Your task to perform on an android device: add a contact Image 0: 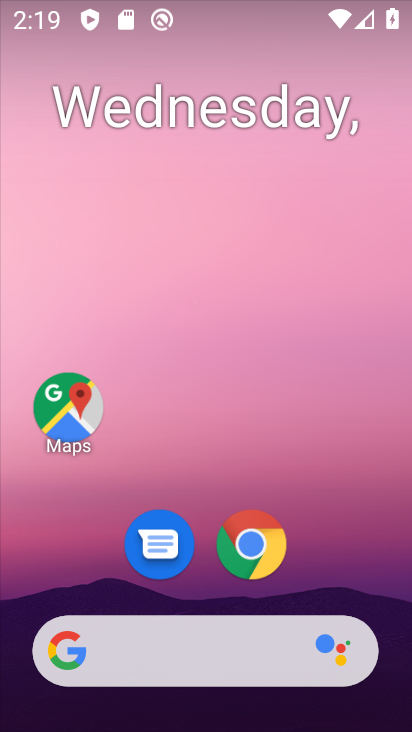
Step 0: drag from (361, 573) to (368, 150)
Your task to perform on an android device: add a contact Image 1: 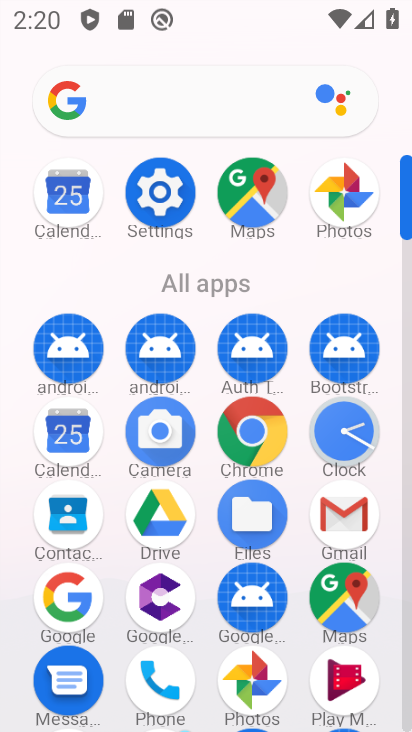
Step 1: drag from (256, 605) to (258, 302)
Your task to perform on an android device: add a contact Image 2: 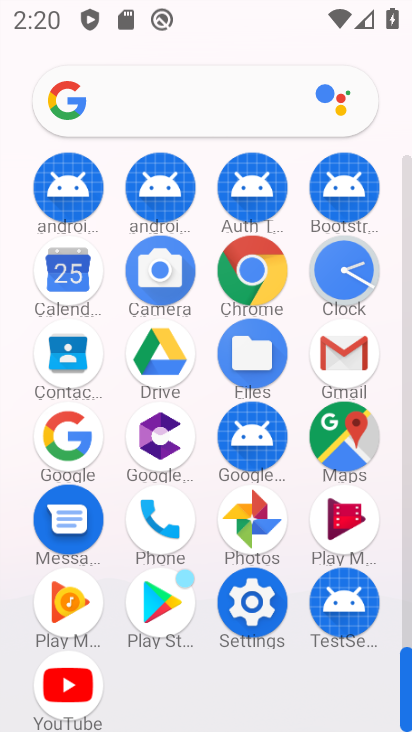
Step 2: click (54, 392)
Your task to perform on an android device: add a contact Image 3: 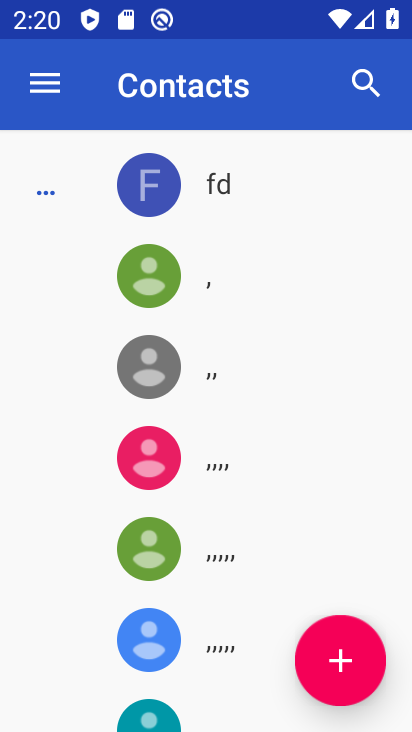
Step 3: click (341, 671)
Your task to perform on an android device: add a contact Image 4: 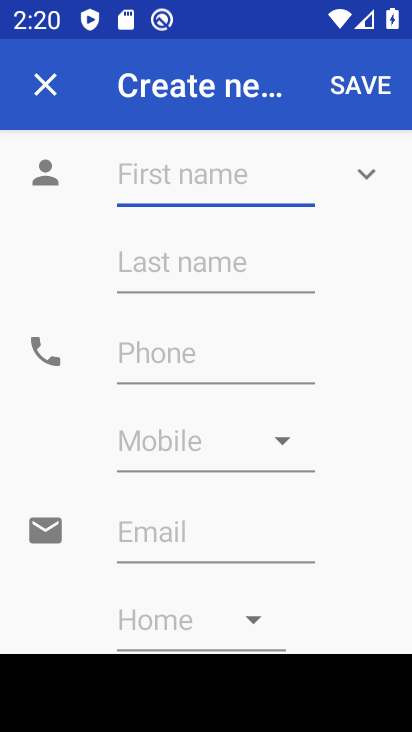
Step 4: type "jnfknd"
Your task to perform on an android device: add a contact Image 5: 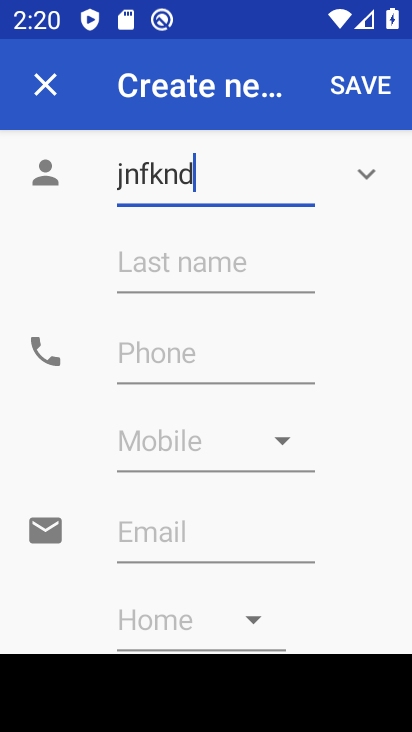
Step 5: click (193, 357)
Your task to perform on an android device: add a contact Image 6: 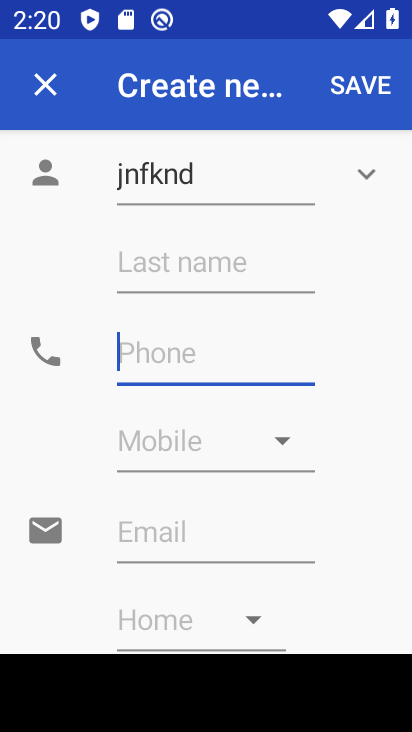
Step 6: type "2993898873"
Your task to perform on an android device: add a contact Image 7: 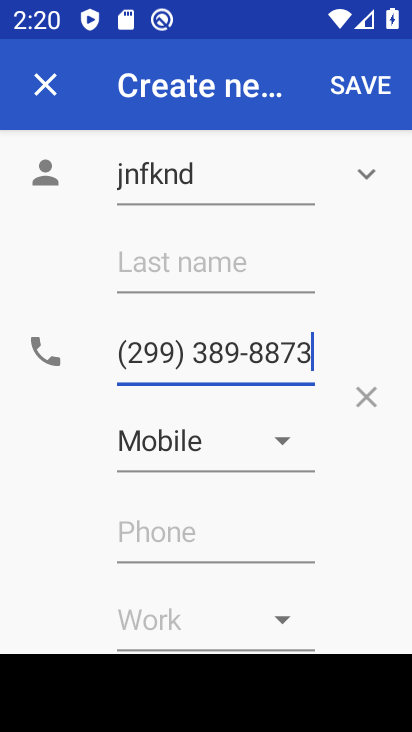
Step 7: click (379, 84)
Your task to perform on an android device: add a contact Image 8: 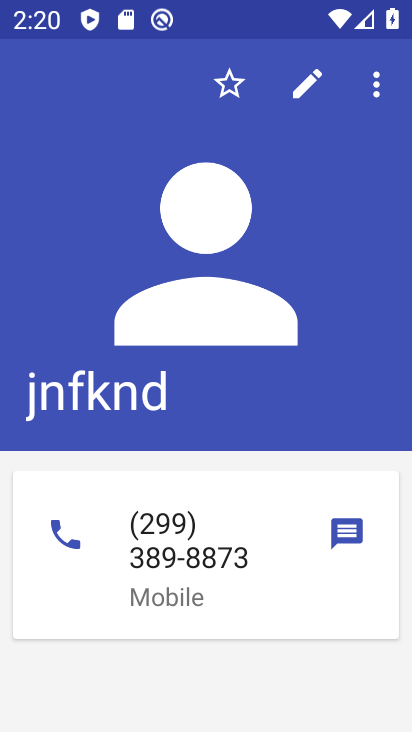
Step 8: task complete